Your task to perform on an android device: turn on translation in the chrome app Image 0: 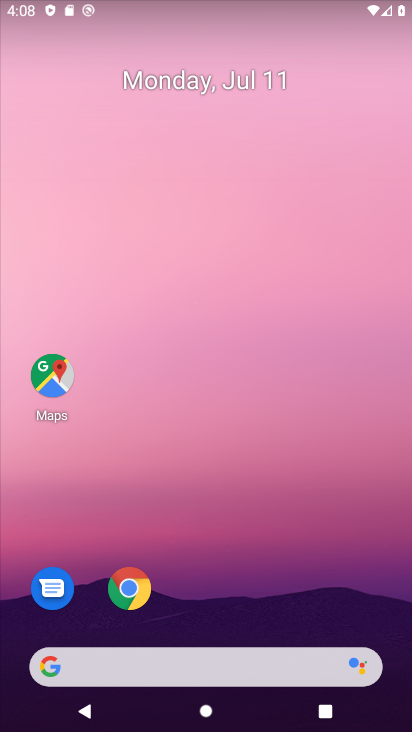
Step 0: drag from (298, 659) to (231, 108)
Your task to perform on an android device: turn on translation in the chrome app Image 1: 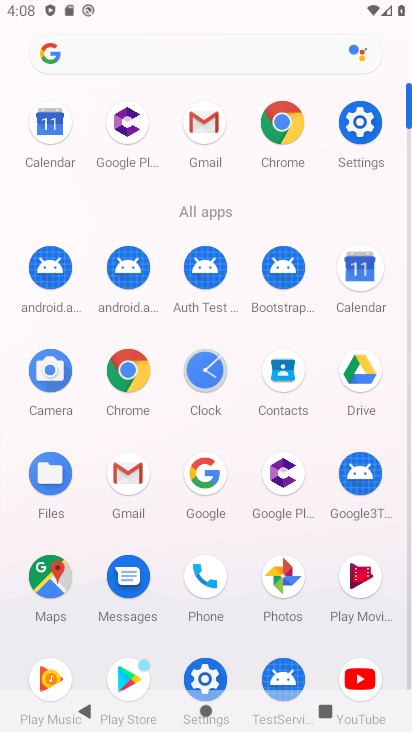
Step 1: click (289, 126)
Your task to perform on an android device: turn on translation in the chrome app Image 2: 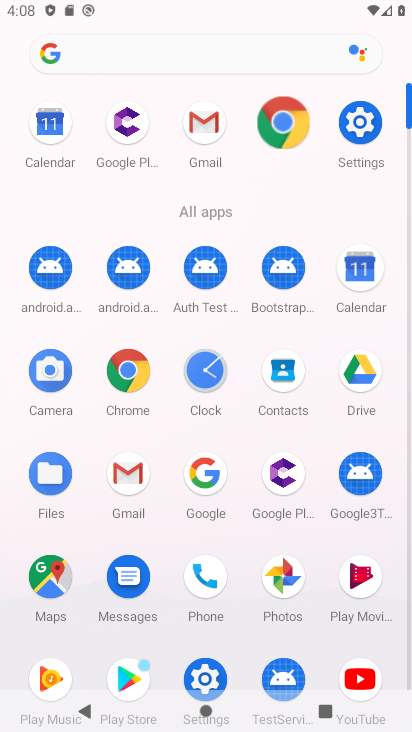
Step 2: click (288, 122)
Your task to perform on an android device: turn on translation in the chrome app Image 3: 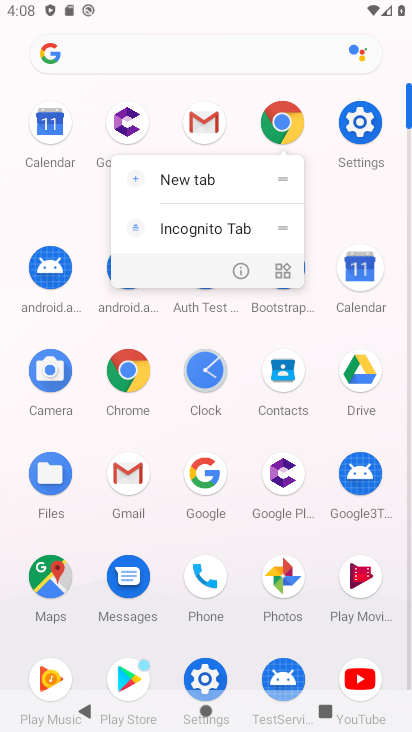
Step 3: click (288, 122)
Your task to perform on an android device: turn on translation in the chrome app Image 4: 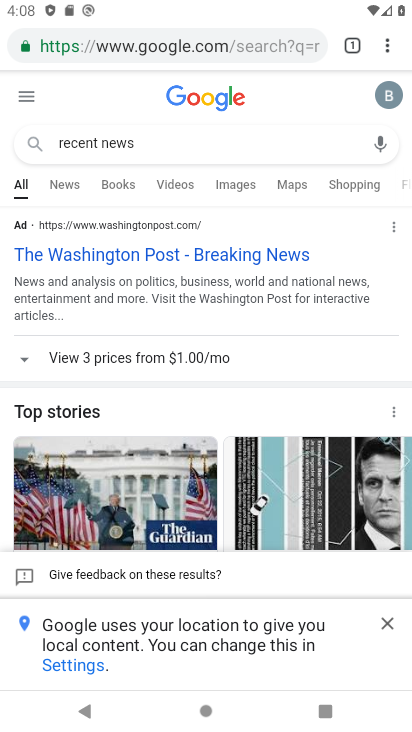
Step 4: press back button
Your task to perform on an android device: turn on translation in the chrome app Image 5: 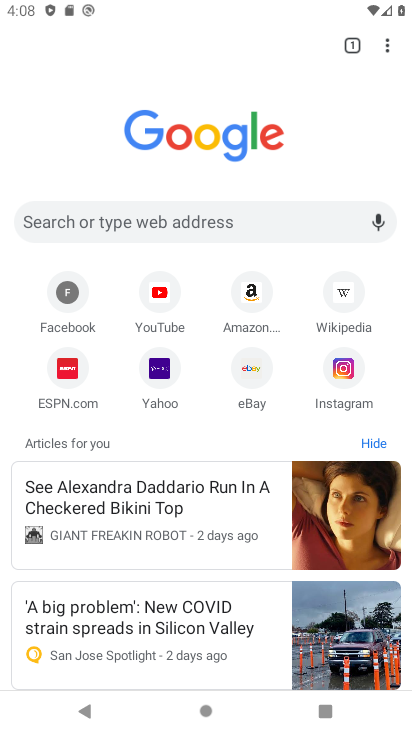
Step 5: drag from (388, 41) to (217, 384)
Your task to perform on an android device: turn on translation in the chrome app Image 6: 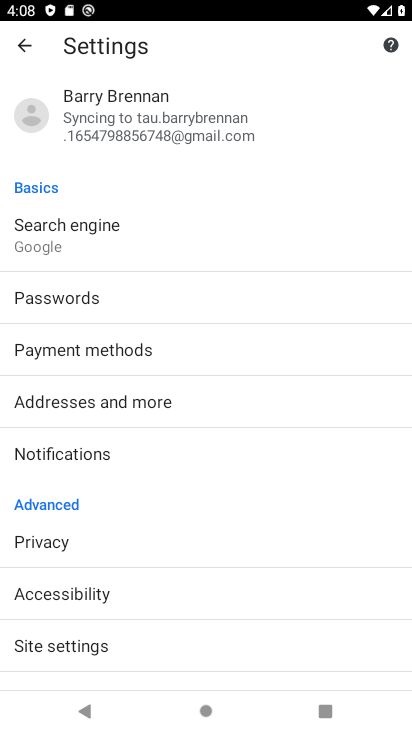
Step 6: drag from (124, 436) to (164, 172)
Your task to perform on an android device: turn on translation in the chrome app Image 7: 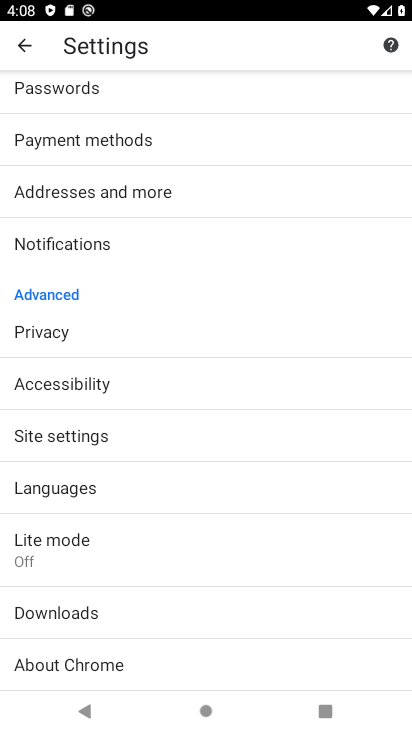
Step 7: click (107, 484)
Your task to perform on an android device: turn on translation in the chrome app Image 8: 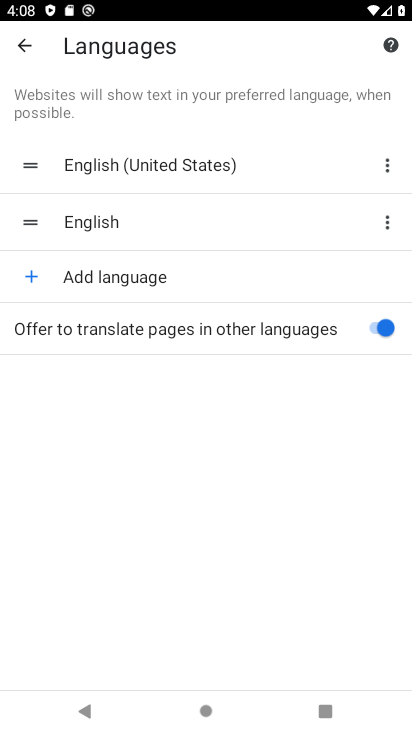
Step 8: task complete